Your task to perform on an android device: Open Wikipedia Image 0: 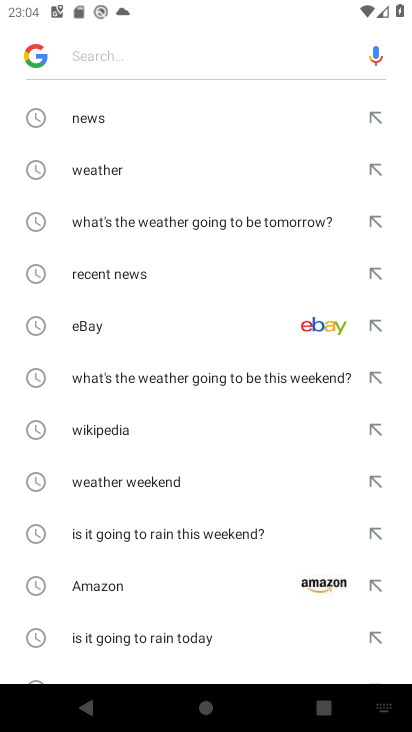
Step 0: press home button
Your task to perform on an android device: Open Wikipedia Image 1: 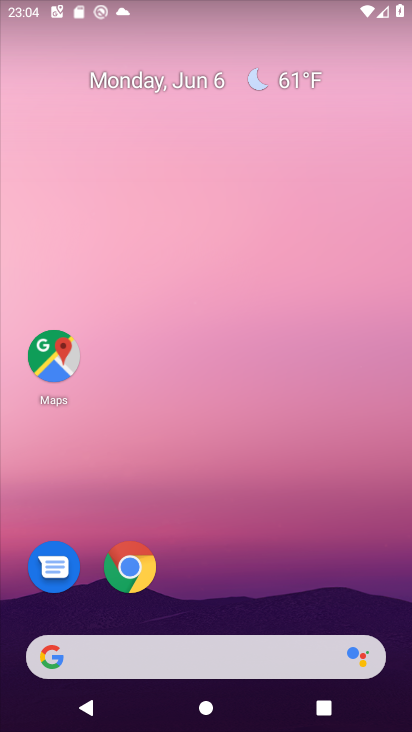
Step 1: click (134, 570)
Your task to perform on an android device: Open Wikipedia Image 2: 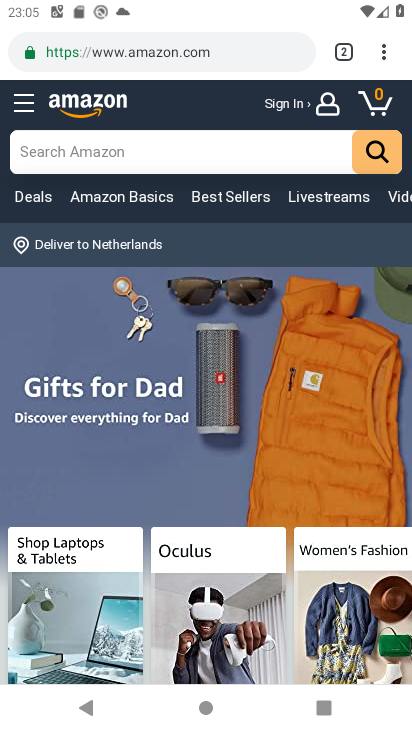
Step 2: click (384, 57)
Your task to perform on an android device: Open Wikipedia Image 3: 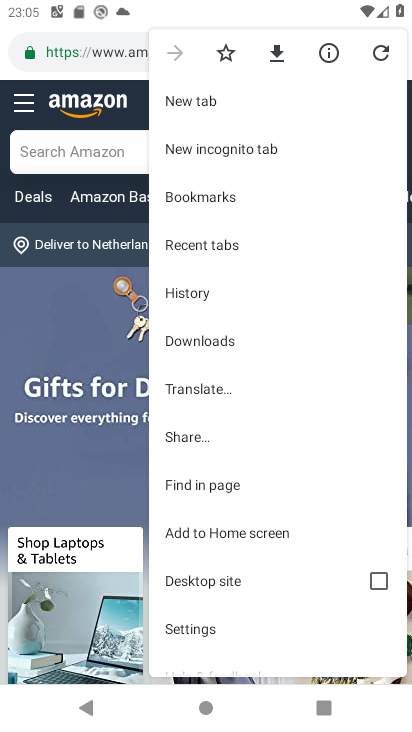
Step 3: click (204, 101)
Your task to perform on an android device: Open Wikipedia Image 4: 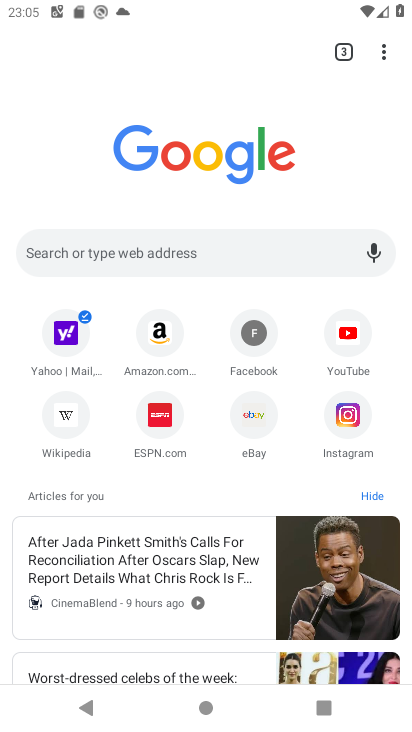
Step 4: click (62, 422)
Your task to perform on an android device: Open Wikipedia Image 5: 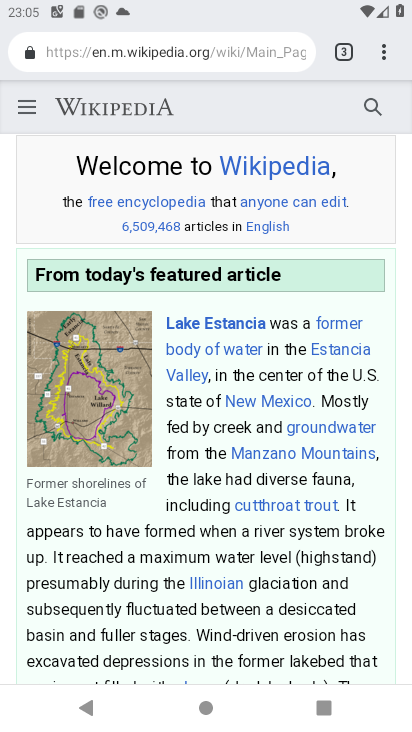
Step 5: task complete